Your task to perform on an android device: turn notification dots on Image 0: 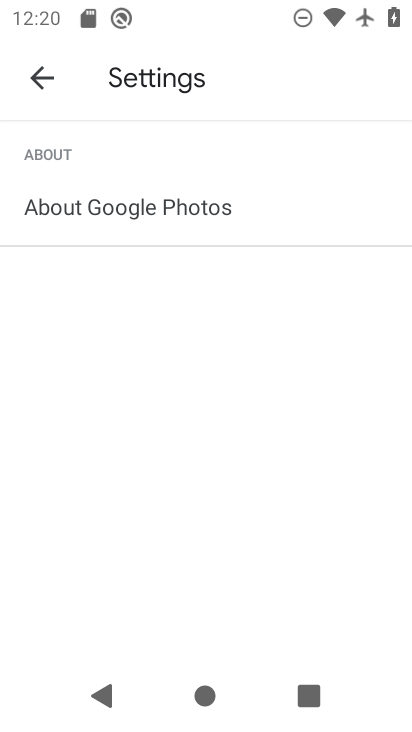
Step 0: press home button
Your task to perform on an android device: turn notification dots on Image 1: 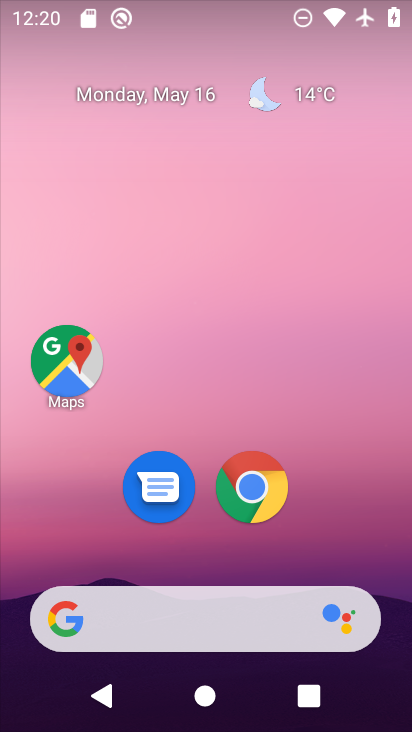
Step 1: drag from (129, 622) to (280, 215)
Your task to perform on an android device: turn notification dots on Image 2: 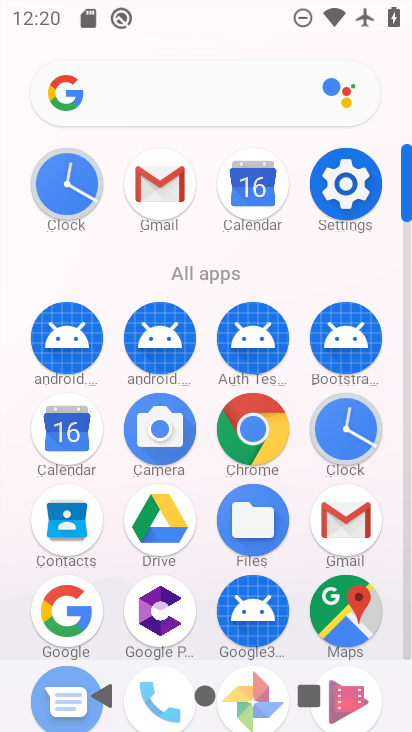
Step 2: drag from (273, 416) to (345, 285)
Your task to perform on an android device: turn notification dots on Image 3: 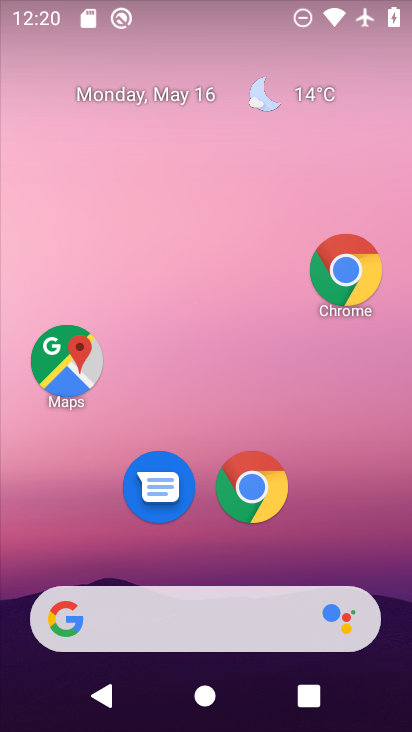
Step 3: drag from (219, 566) to (323, 189)
Your task to perform on an android device: turn notification dots on Image 4: 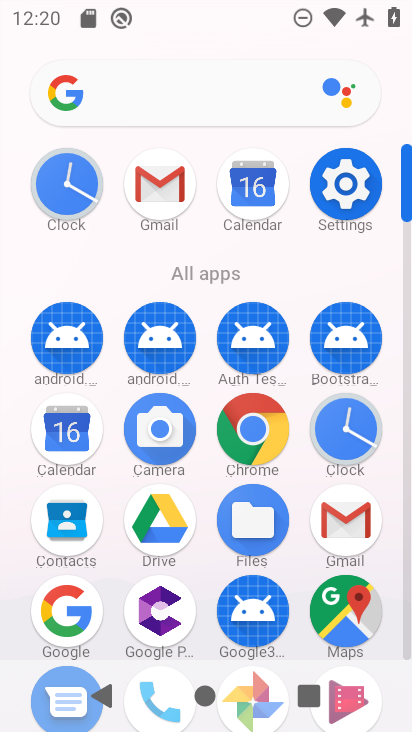
Step 4: click (344, 191)
Your task to perform on an android device: turn notification dots on Image 5: 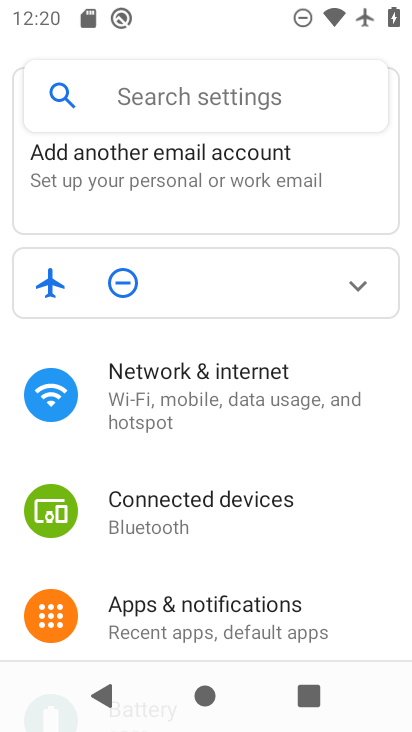
Step 5: click (192, 607)
Your task to perform on an android device: turn notification dots on Image 6: 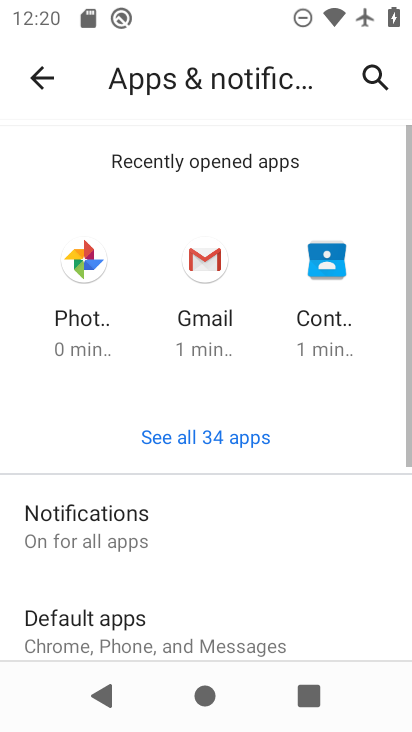
Step 6: click (135, 534)
Your task to perform on an android device: turn notification dots on Image 7: 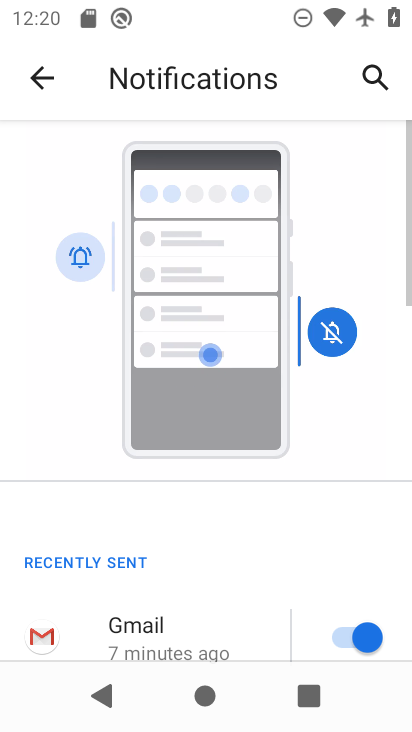
Step 7: drag from (245, 608) to (388, 5)
Your task to perform on an android device: turn notification dots on Image 8: 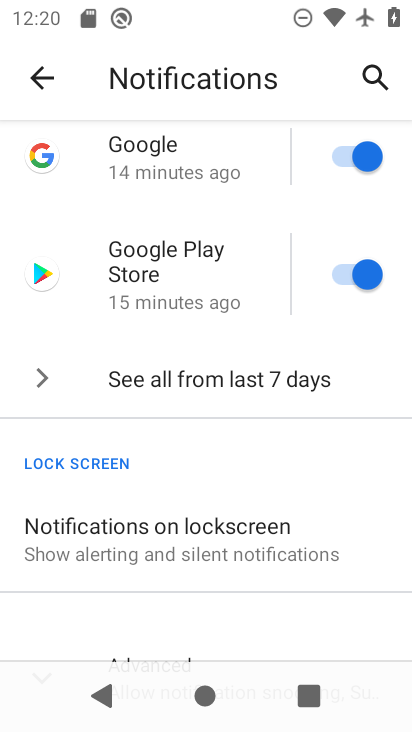
Step 8: drag from (273, 429) to (310, 85)
Your task to perform on an android device: turn notification dots on Image 9: 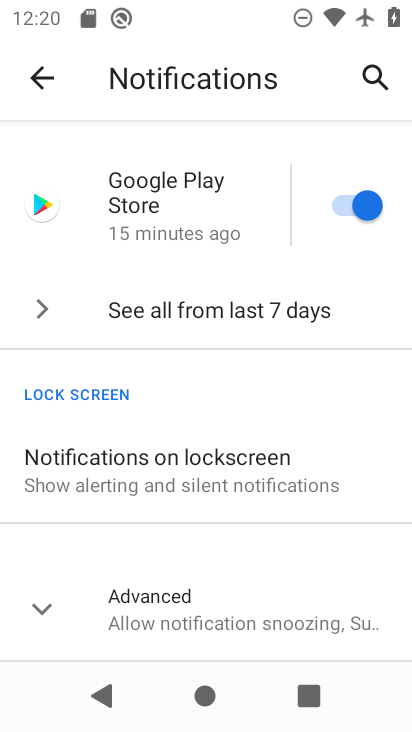
Step 9: click (171, 610)
Your task to perform on an android device: turn notification dots on Image 10: 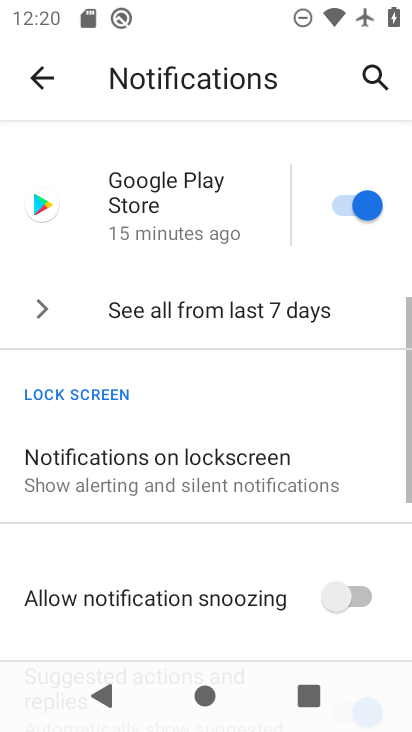
Step 10: task complete